Your task to perform on an android device: turn smart compose on in the gmail app Image 0: 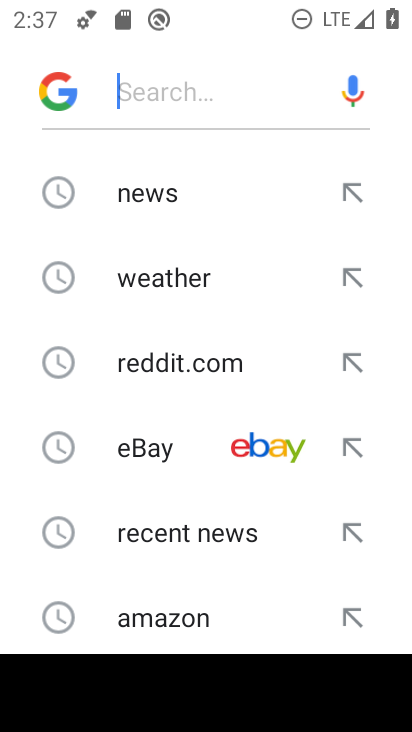
Step 0: press home button
Your task to perform on an android device: turn smart compose on in the gmail app Image 1: 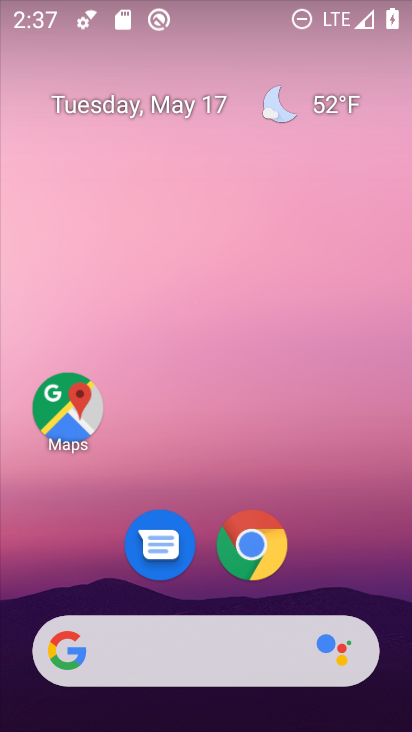
Step 1: drag from (375, 582) to (373, 143)
Your task to perform on an android device: turn smart compose on in the gmail app Image 2: 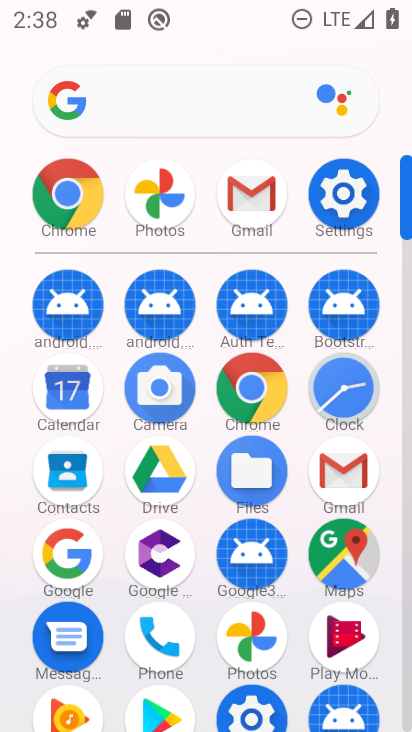
Step 2: click (363, 475)
Your task to perform on an android device: turn smart compose on in the gmail app Image 3: 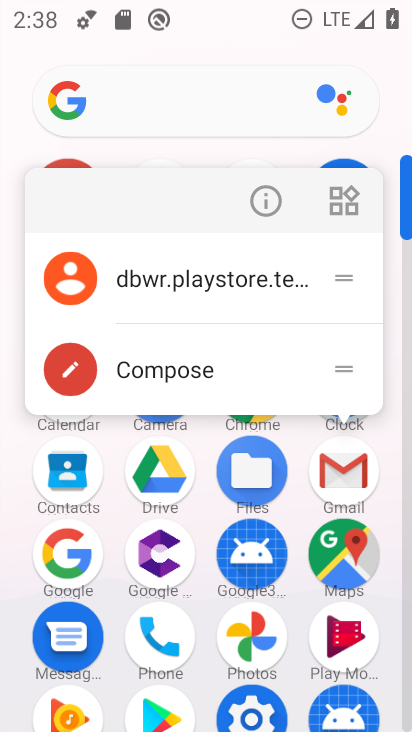
Step 3: click (363, 475)
Your task to perform on an android device: turn smart compose on in the gmail app Image 4: 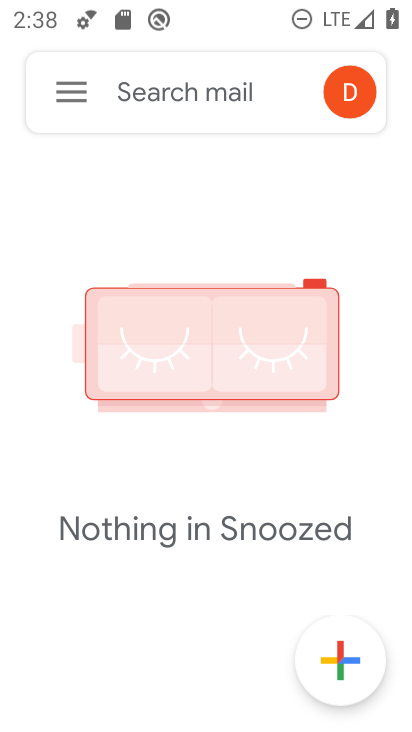
Step 4: click (84, 97)
Your task to perform on an android device: turn smart compose on in the gmail app Image 5: 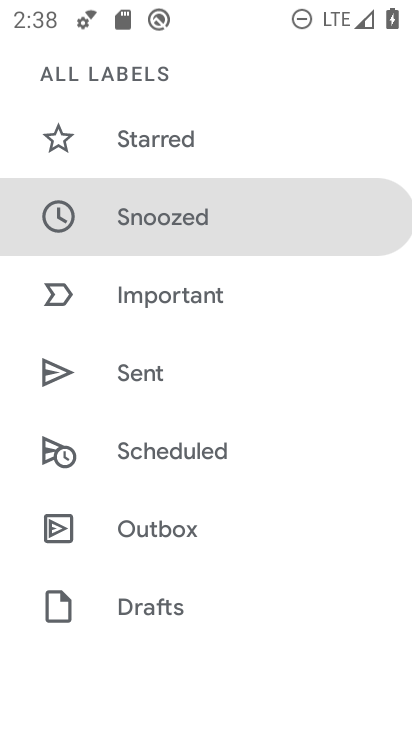
Step 5: drag from (334, 536) to (334, 417)
Your task to perform on an android device: turn smart compose on in the gmail app Image 6: 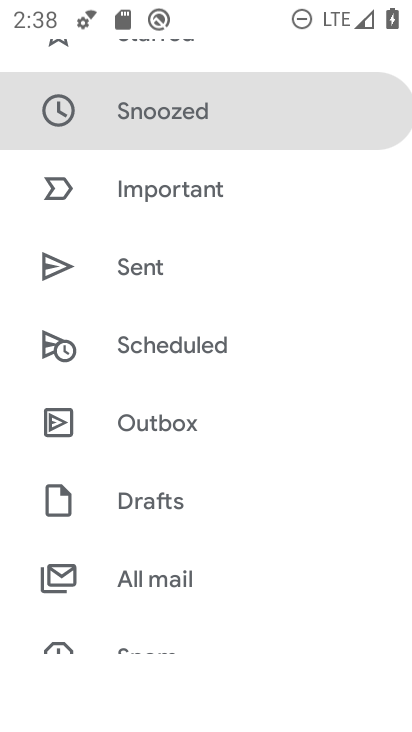
Step 6: drag from (332, 551) to (330, 448)
Your task to perform on an android device: turn smart compose on in the gmail app Image 7: 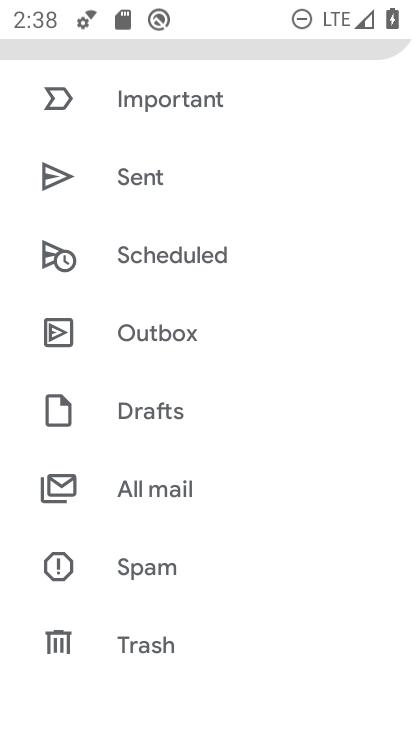
Step 7: drag from (324, 575) to (339, 478)
Your task to perform on an android device: turn smart compose on in the gmail app Image 8: 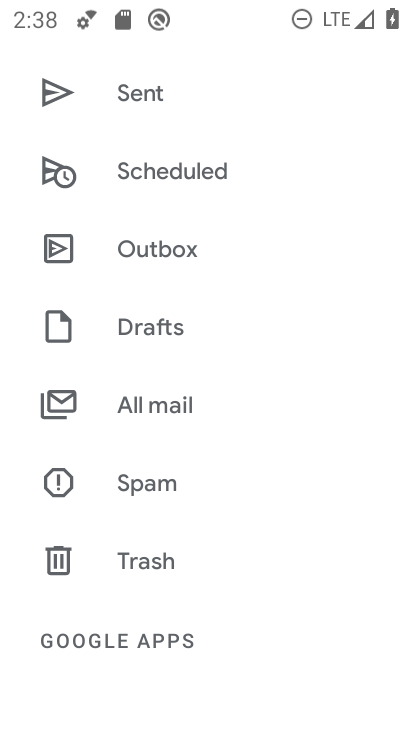
Step 8: drag from (332, 494) to (315, 383)
Your task to perform on an android device: turn smart compose on in the gmail app Image 9: 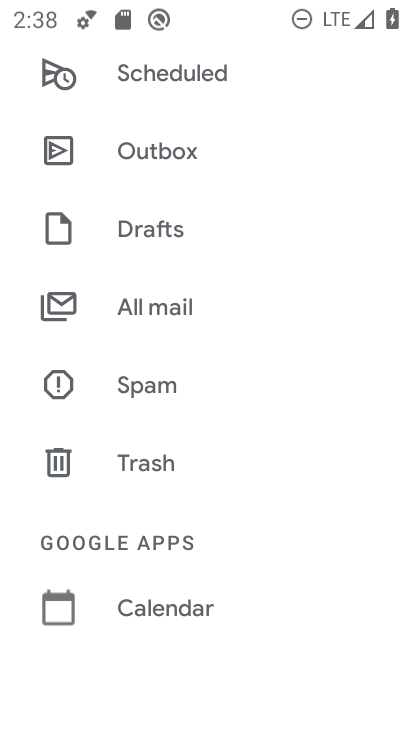
Step 9: drag from (322, 555) to (309, 448)
Your task to perform on an android device: turn smart compose on in the gmail app Image 10: 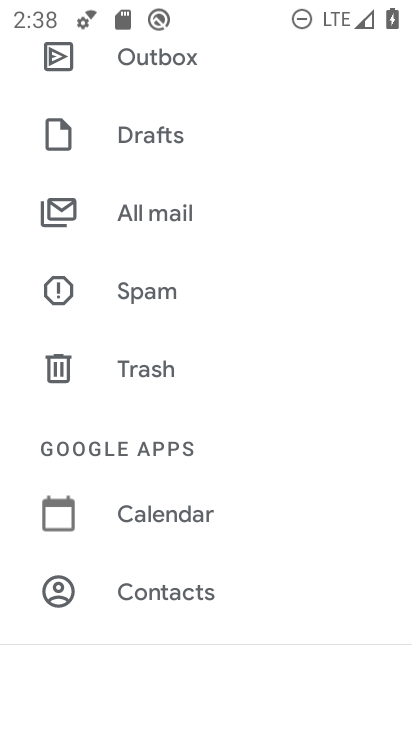
Step 10: drag from (284, 593) to (282, 466)
Your task to perform on an android device: turn smart compose on in the gmail app Image 11: 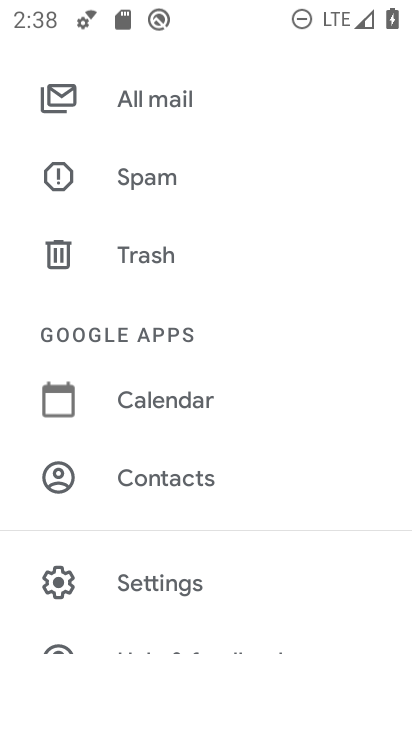
Step 11: drag from (271, 587) to (275, 502)
Your task to perform on an android device: turn smart compose on in the gmail app Image 12: 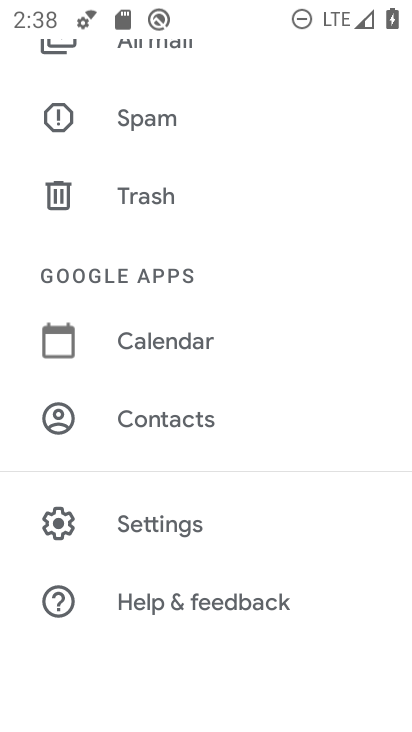
Step 12: click (235, 539)
Your task to perform on an android device: turn smart compose on in the gmail app Image 13: 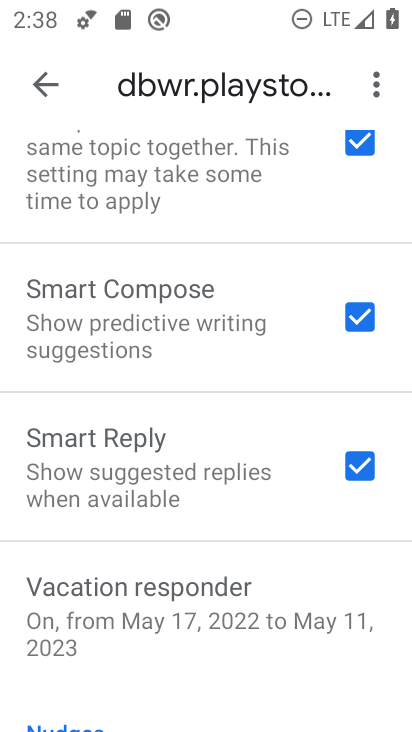
Step 13: task complete